Your task to perform on an android device: add a contact in the contacts app Image 0: 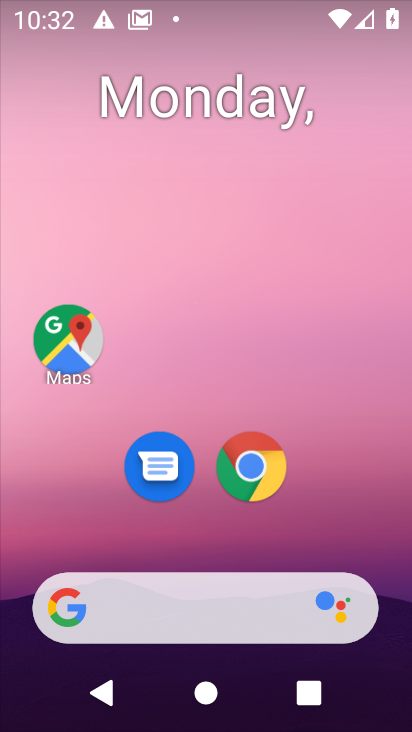
Step 0: drag from (228, 540) to (191, 62)
Your task to perform on an android device: add a contact in the contacts app Image 1: 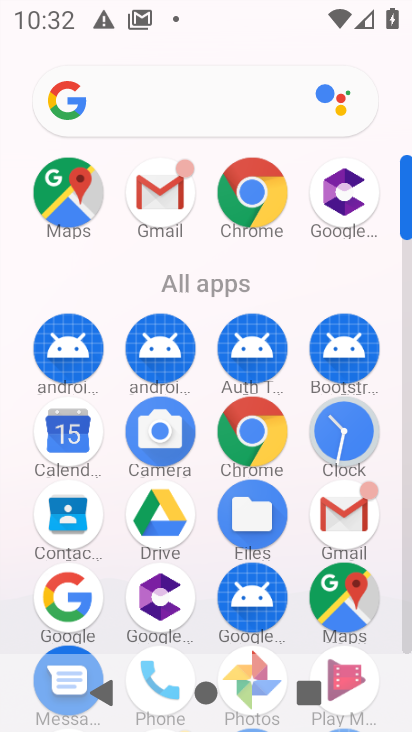
Step 1: click (66, 518)
Your task to perform on an android device: add a contact in the contacts app Image 2: 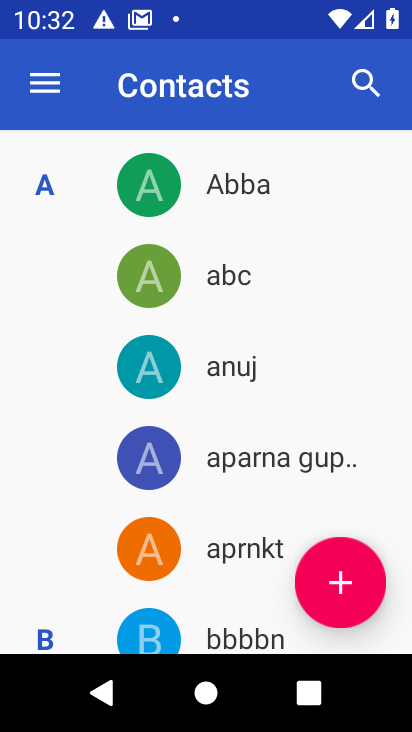
Step 2: drag from (218, 531) to (213, 167)
Your task to perform on an android device: add a contact in the contacts app Image 3: 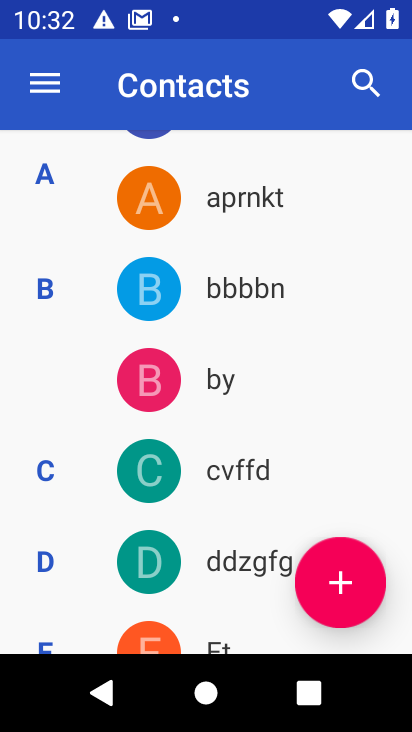
Step 3: click (328, 593)
Your task to perform on an android device: add a contact in the contacts app Image 4: 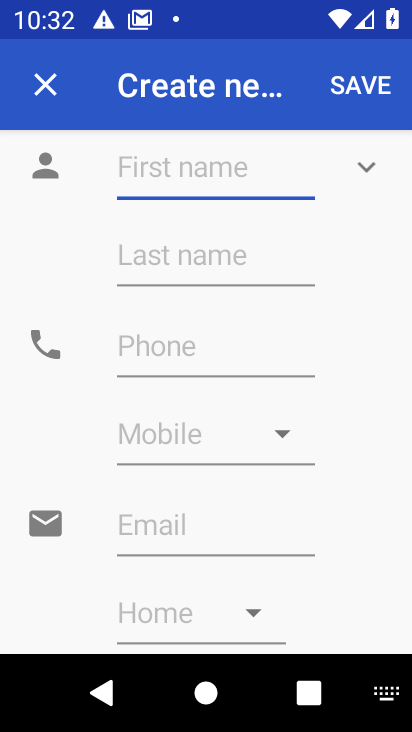
Step 4: type "bnhh"
Your task to perform on an android device: add a contact in the contacts app Image 5: 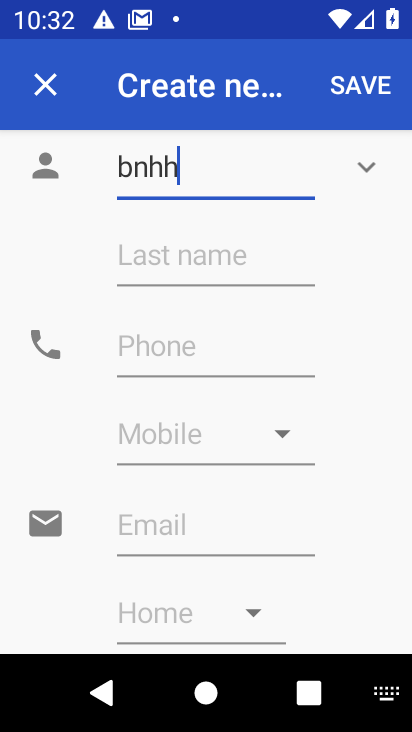
Step 5: click (244, 347)
Your task to perform on an android device: add a contact in the contacts app Image 6: 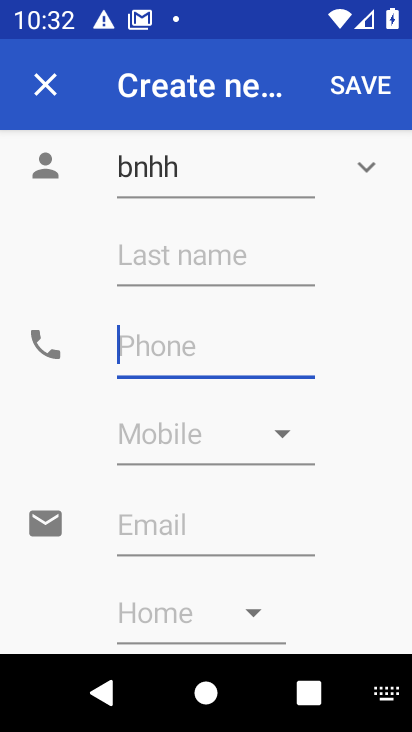
Step 6: type "5467"
Your task to perform on an android device: add a contact in the contacts app Image 7: 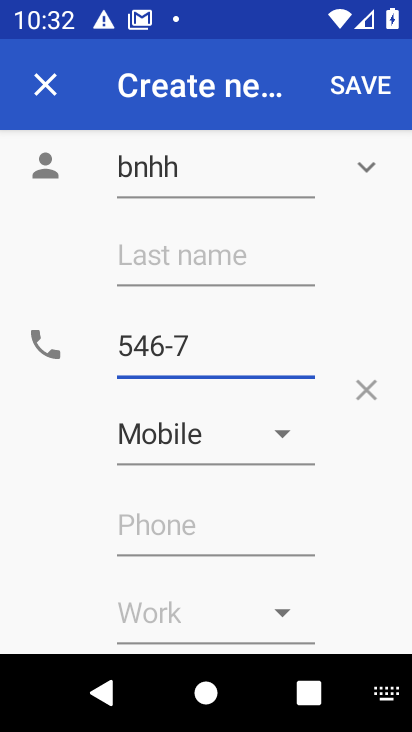
Step 7: click (353, 86)
Your task to perform on an android device: add a contact in the contacts app Image 8: 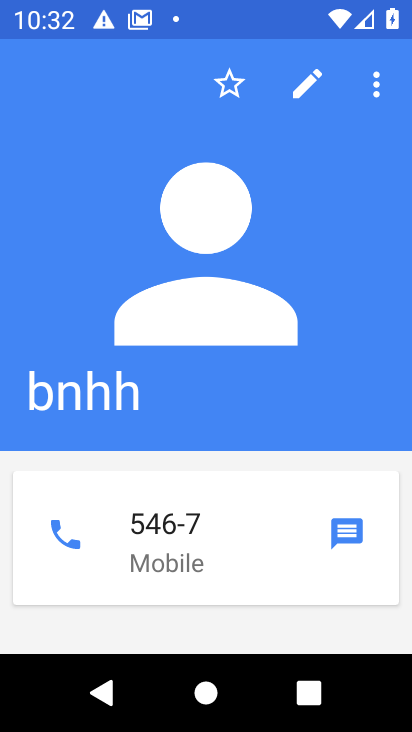
Step 8: task complete